Your task to perform on an android device: find photos in the google photos app Image 0: 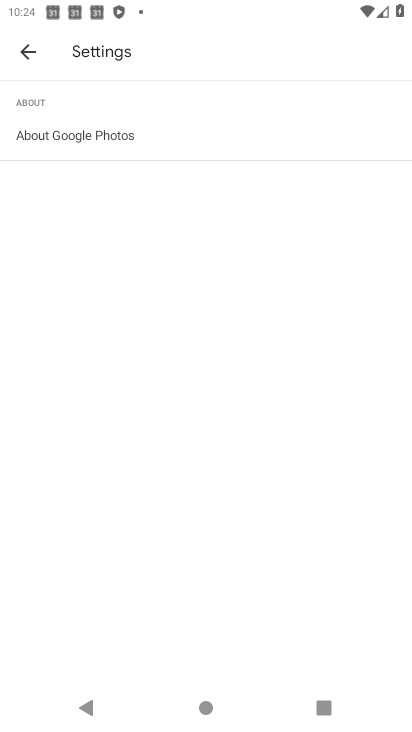
Step 0: drag from (202, 670) to (266, 230)
Your task to perform on an android device: find photos in the google photos app Image 1: 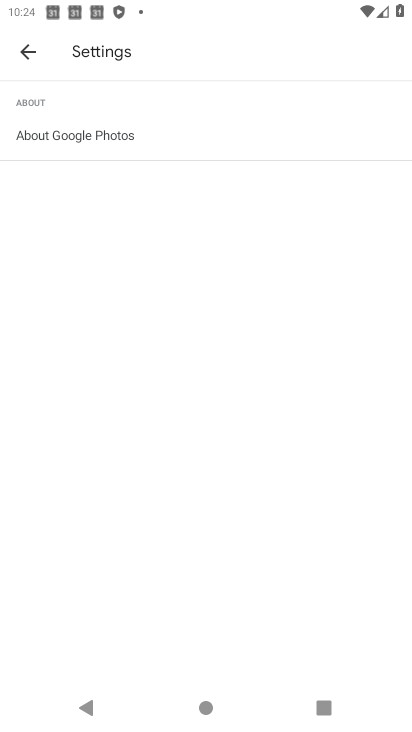
Step 1: task complete